Your task to perform on an android device: manage bookmarks in the chrome app Image 0: 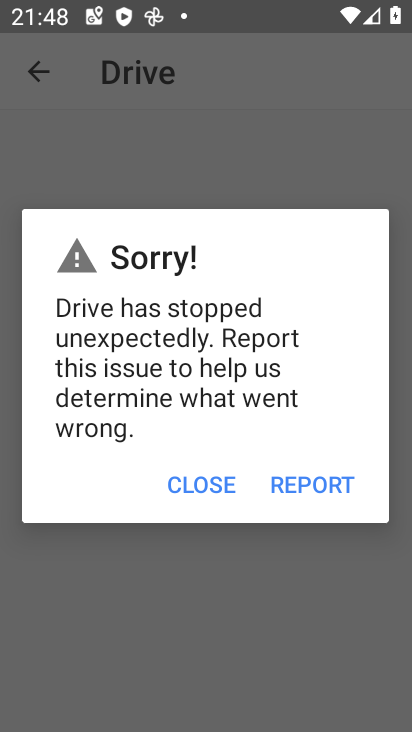
Step 0: press home button
Your task to perform on an android device: manage bookmarks in the chrome app Image 1: 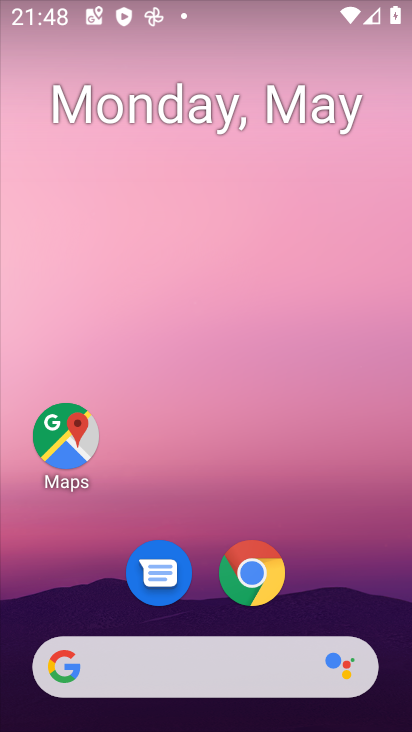
Step 1: click (257, 576)
Your task to perform on an android device: manage bookmarks in the chrome app Image 2: 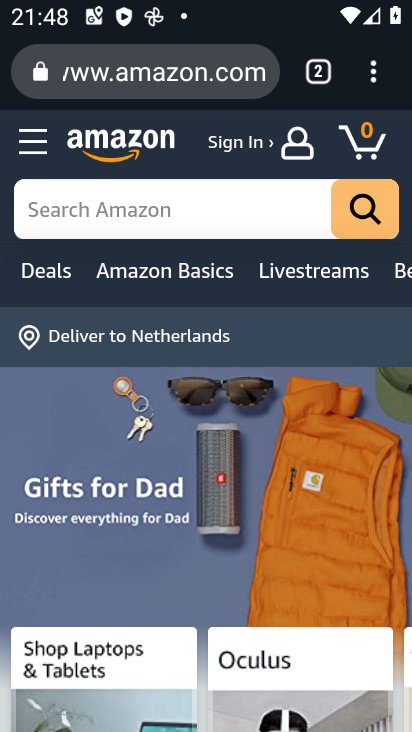
Step 2: click (385, 79)
Your task to perform on an android device: manage bookmarks in the chrome app Image 3: 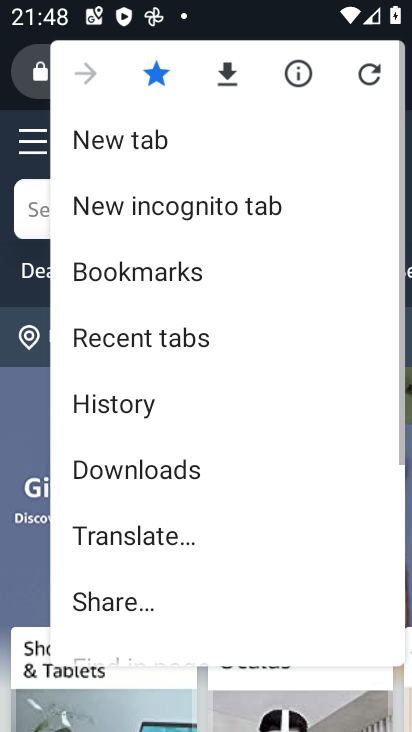
Step 3: click (247, 278)
Your task to perform on an android device: manage bookmarks in the chrome app Image 4: 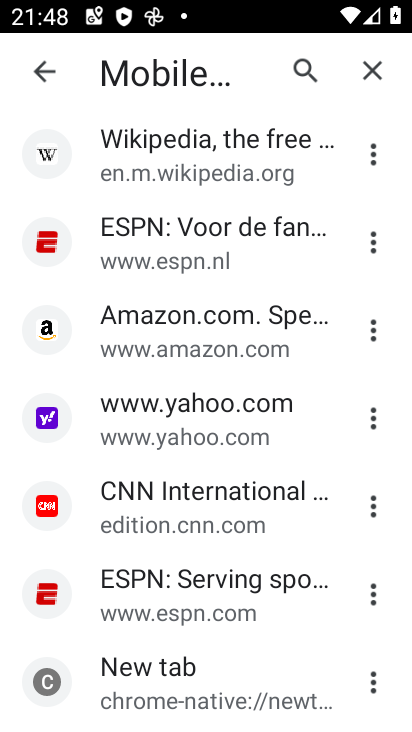
Step 4: task complete